Your task to perform on an android device: Turn on the flashlight Image 0: 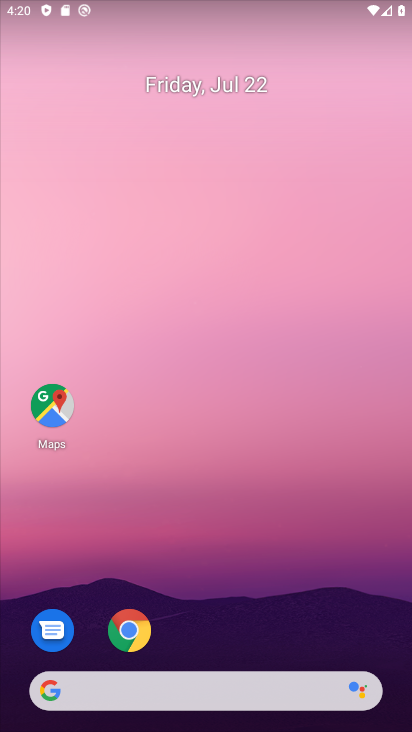
Step 0: drag from (192, 579) to (187, 158)
Your task to perform on an android device: Turn on the flashlight Image 1: 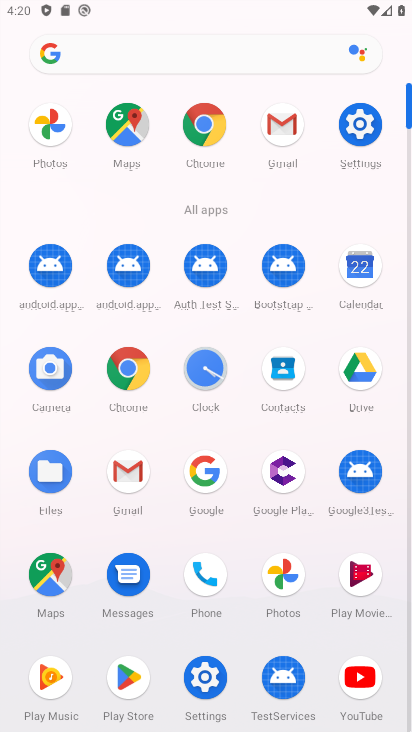
Step 1: task complete